Your task to perform on an android device: turn off airplane mode Image 0: 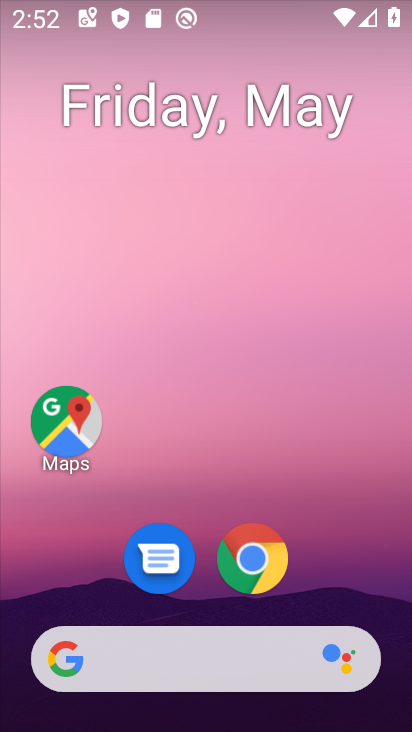
Step 0: drag from (122, 619) to (236, 68)
Your task to perform on an android device: turn off airplane mode Image 1: 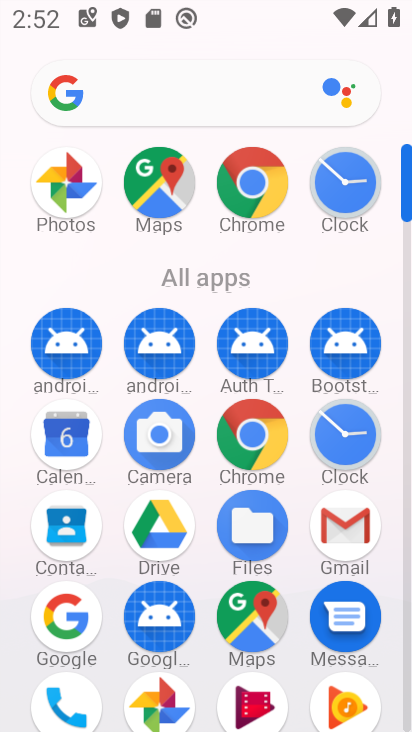
Step 1: drag from (163, 642) to (241, 291)
Your task to perform on an android device: turn off airplane mode Image 2: 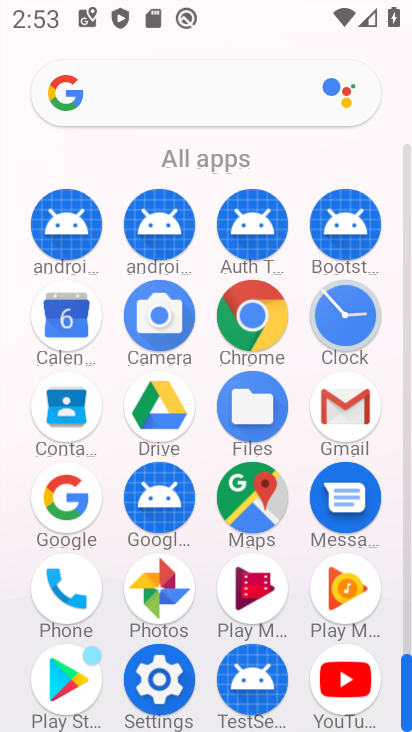
Step 2: click (161, 679)
Your task to perform on an android device: turn off airplane mode Image 3: 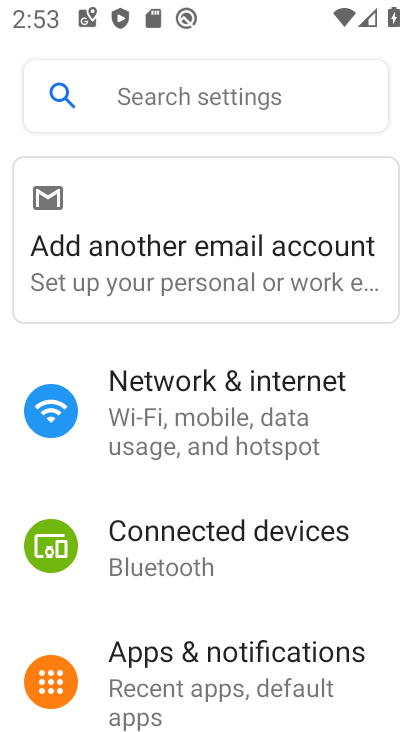
Step 3: click (250, 412)
Your task to perform on an android device: turn off airplane mode Image 4: 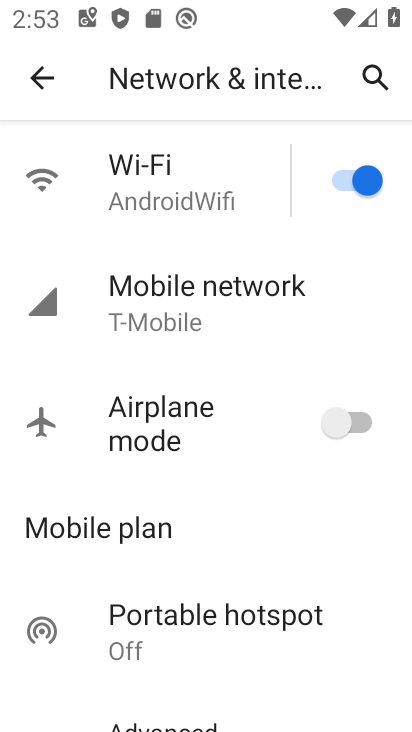
Step 4: task complete